Your task to perform on an android device: open app "Microsoft Authenticator" (install if not already installed) and go to login screen Image 0: 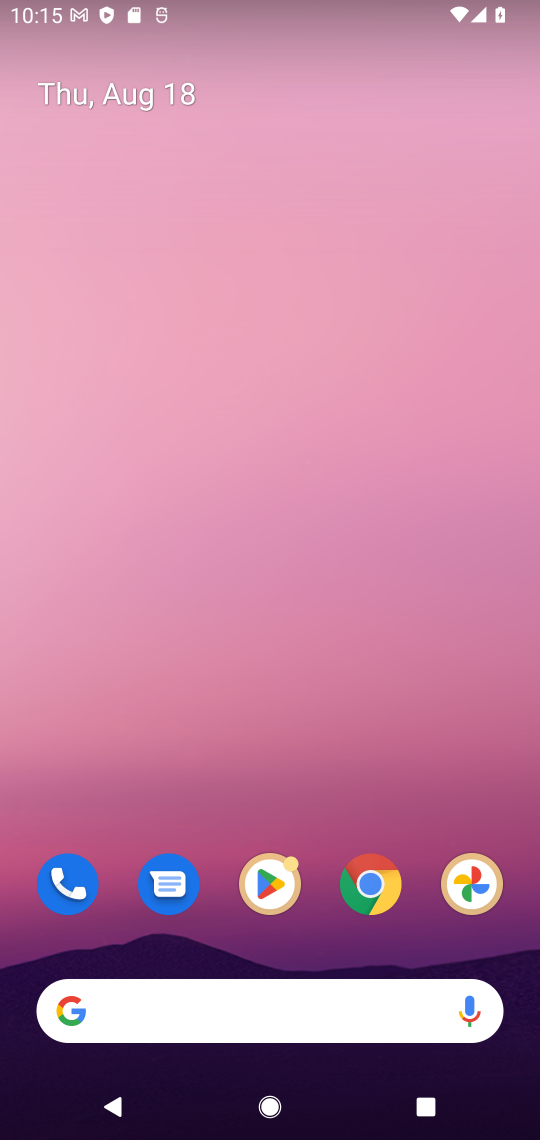
Step 0: drag from (211, 991) to (418, 102)
Your task to perform on an android device: open app "Microsoft Authenticator" (install if not already installed) and go to login screen Image 1: 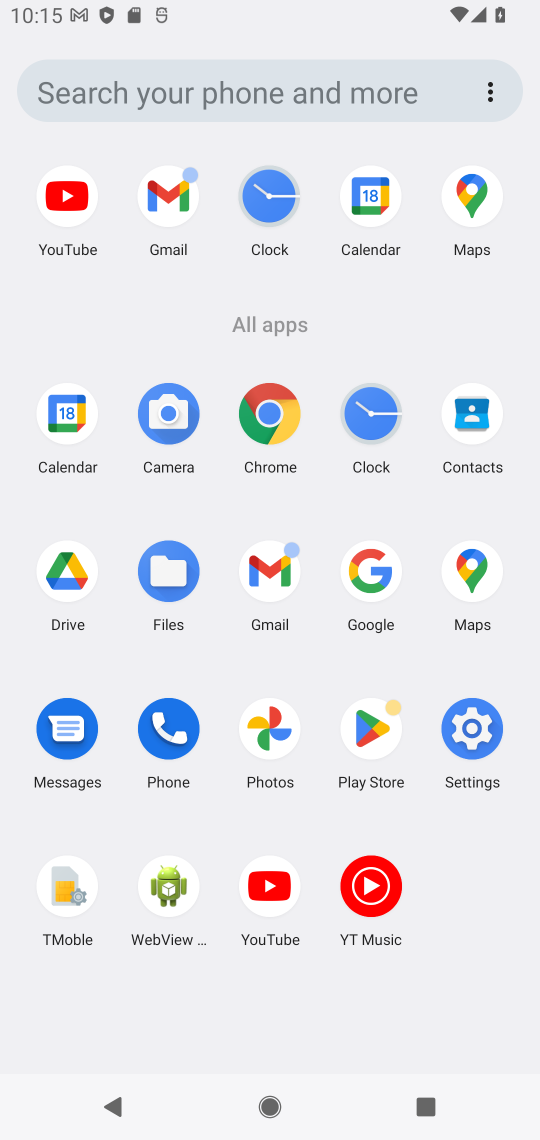
Step 1: click (377, 733)
Your task to perform on an android device: open app "Microsoft Authenticator" (install if not already installed) and go to login screen Image 2: 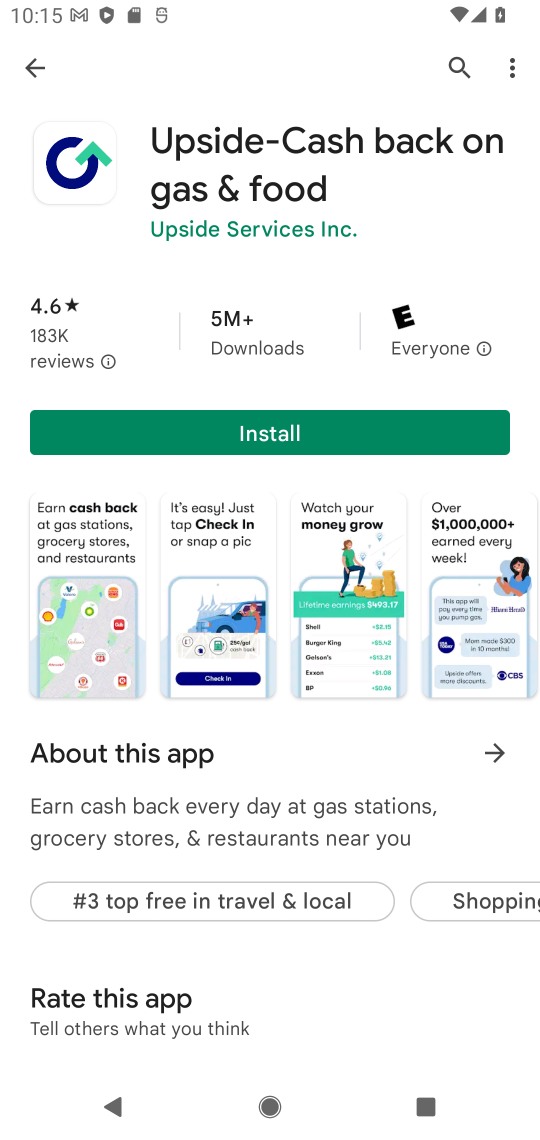
Step 2: press back button
Your task to perform on an android device: open app "Microsoft Authenticator" (install if not already installed) and go to login screen Image 3: 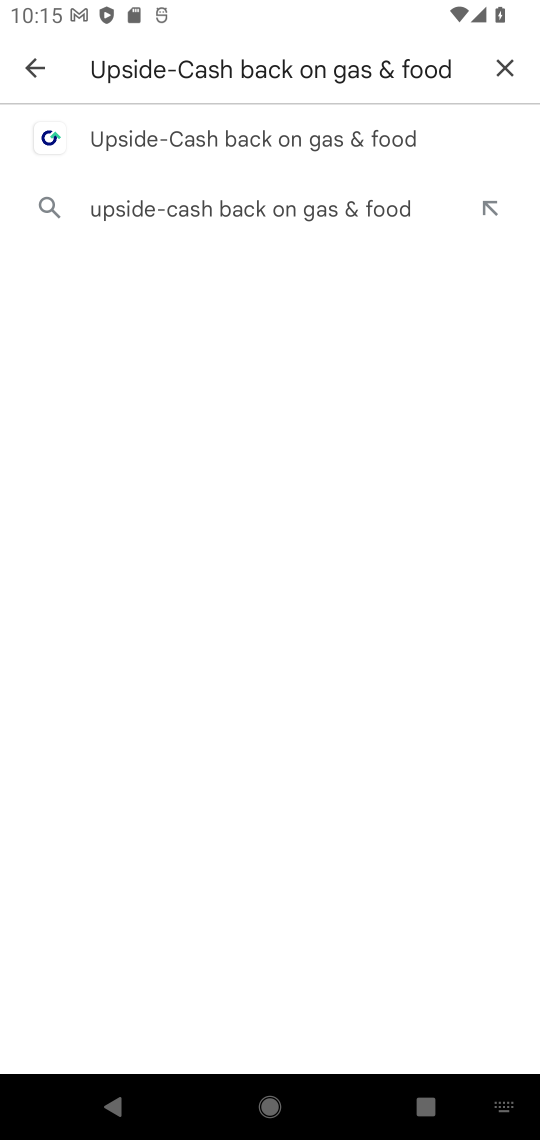
Step 3: press back button
Your task to perform on an android device: open app "Microsoft Authenticator" (install if not already installed) and go to login screen Image 4: 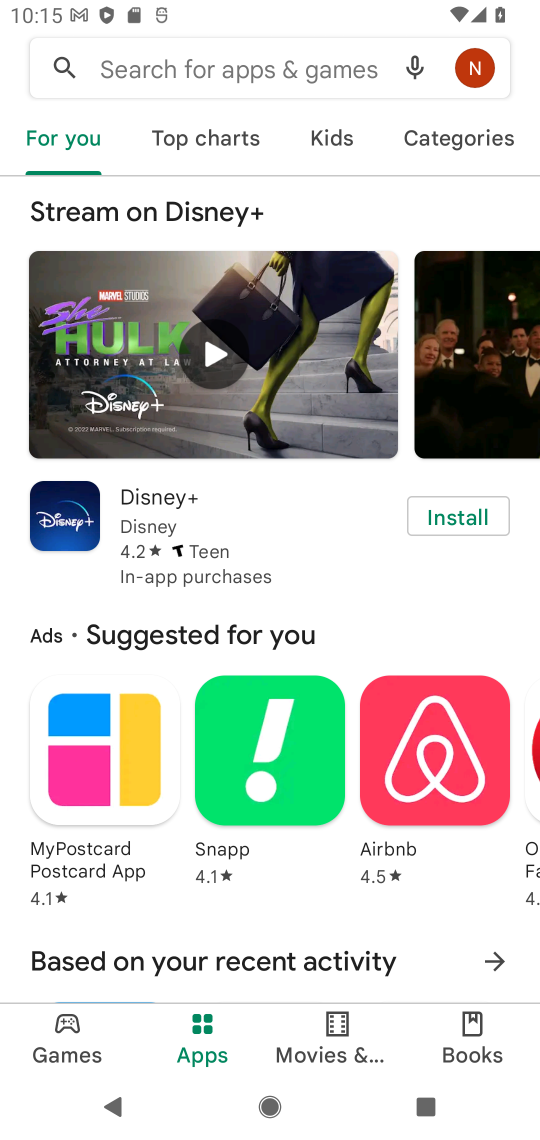
Step 4: click (289, 78)
Your task to perform on an android device: open app "Microsoft Authenticator" (install if not already installed) and go to login screen Image 5: 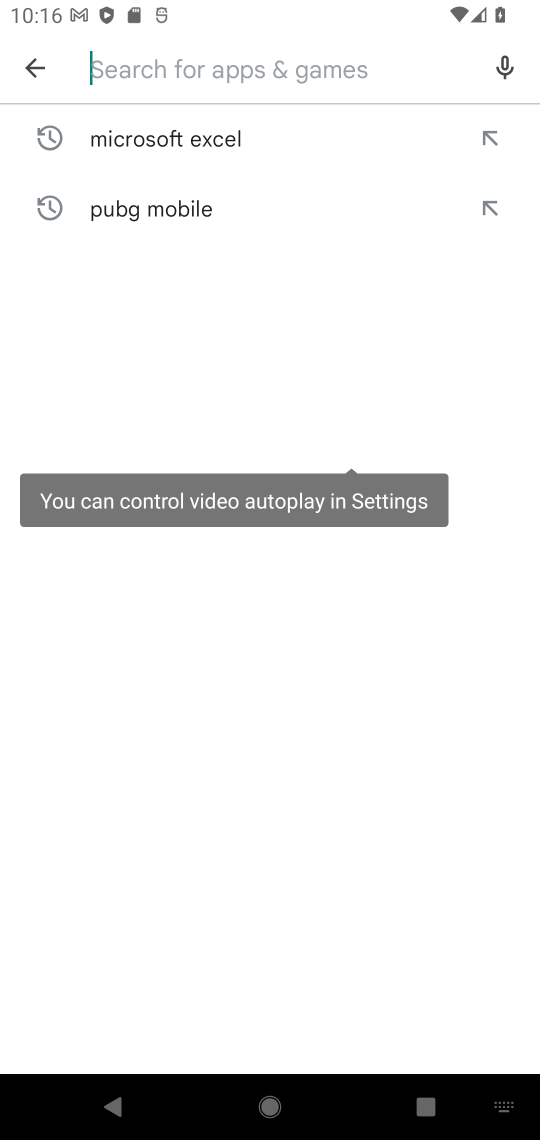
Step 5: type "Microsoft Authenticator"
Your task to perform on an android device: open app "Microsoft Authenticator" (install if not already installed) and go to login screen Image 6: 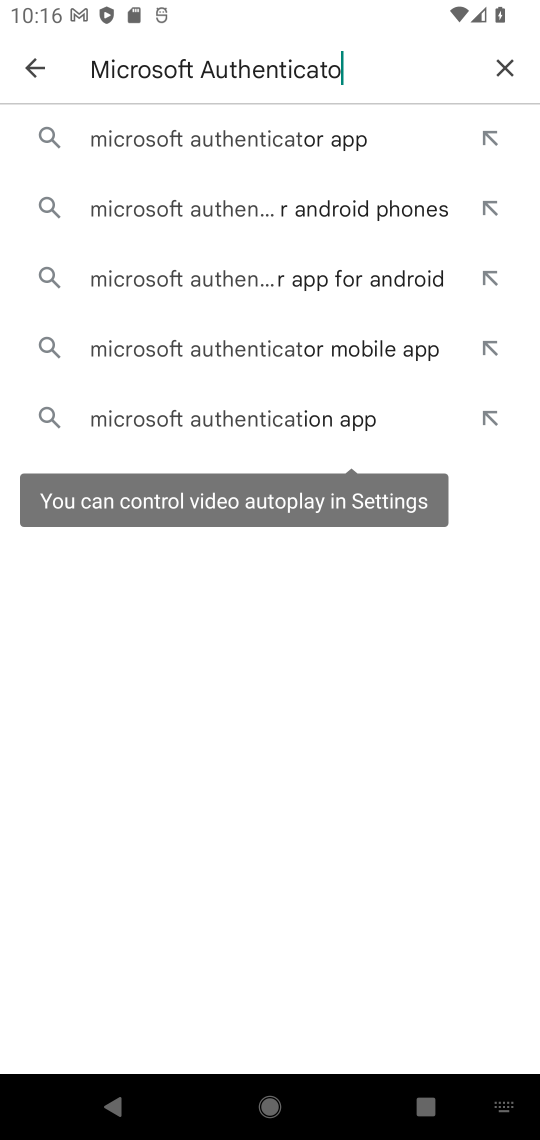
Step 6: type ""
Your task to perform on an android device: open app "Microsoft Authenticator" (install if not already installed) and go to login screen Image 7: 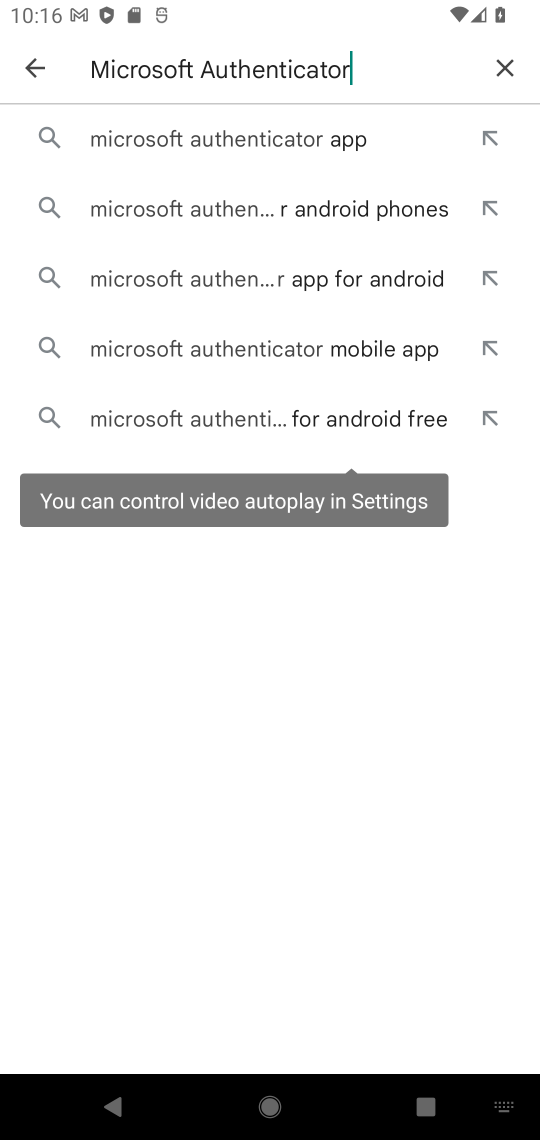
Step 7: click (268, 138)
Your task to perform on an android device: open app "Microsoft Authenticator" (install if not already installed) and go to login screen Image 8: 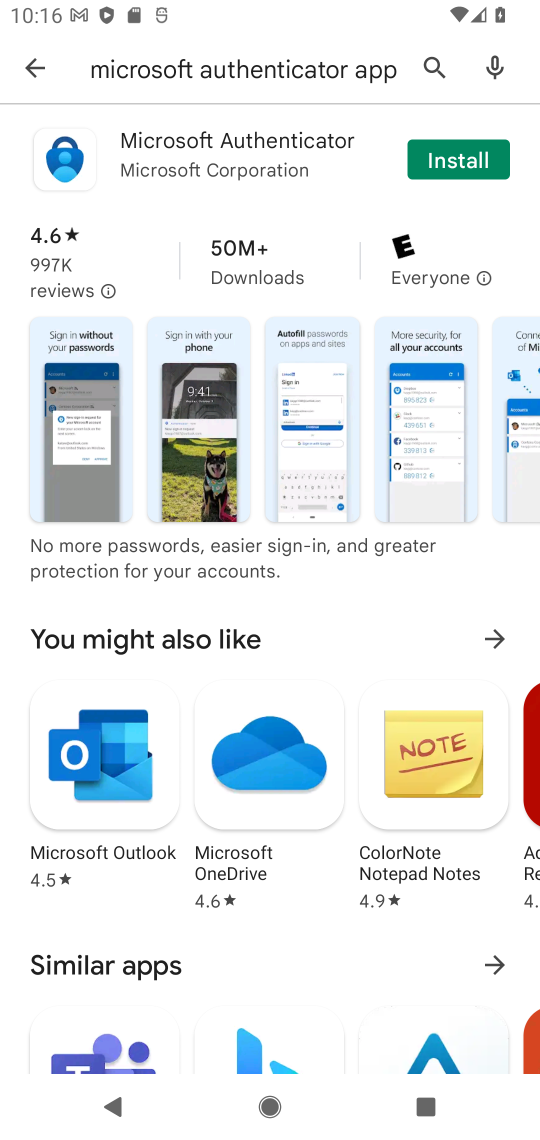
Step 8: click (453, 163)
Your task to perform on an android device: open app "Microsoft Authenticator" (install if not already installed) and go to login screen Image 9: 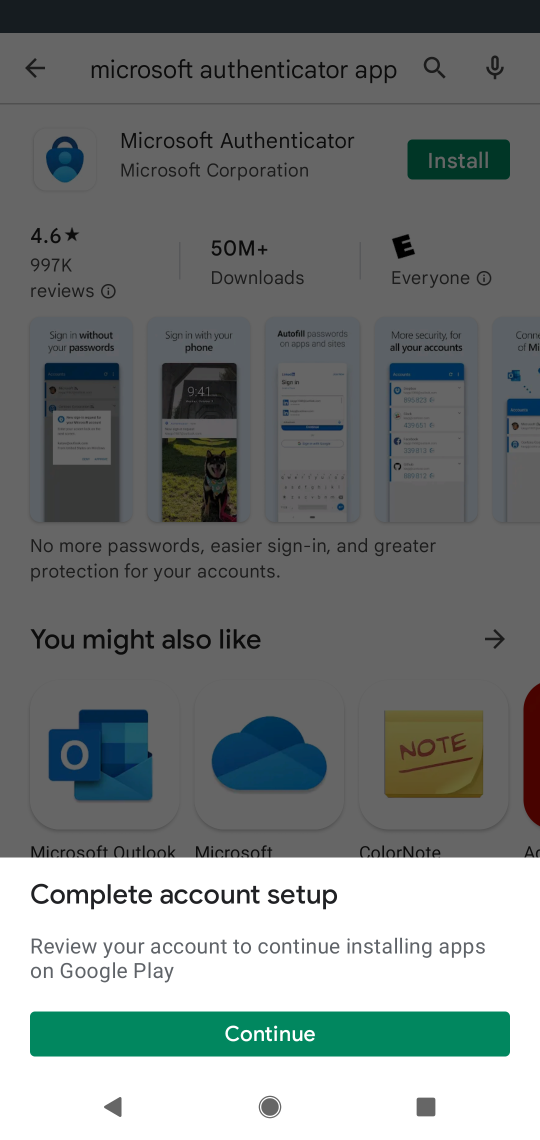
Step 9: click (294, 1038)
Your task to perform on an android device: open app "Microsoft Authenticator" (install if not already installed) and go to login screen Image 10: 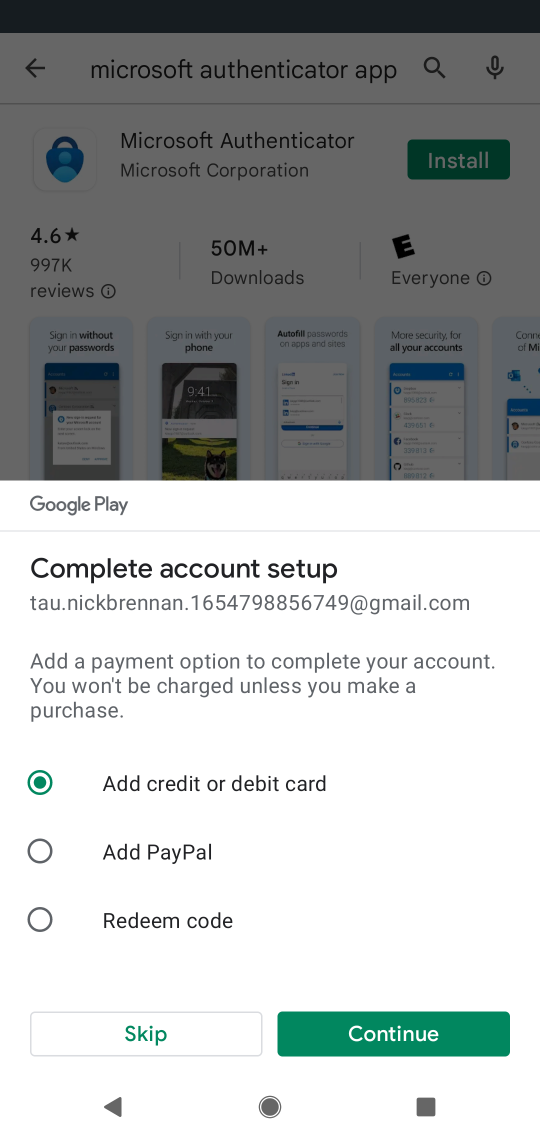
Step 10: click (139, 1040)
Your task to perform on an android device: open app "Microsoft Authenticator" (install if not already installed) and go to login screen Image 11: 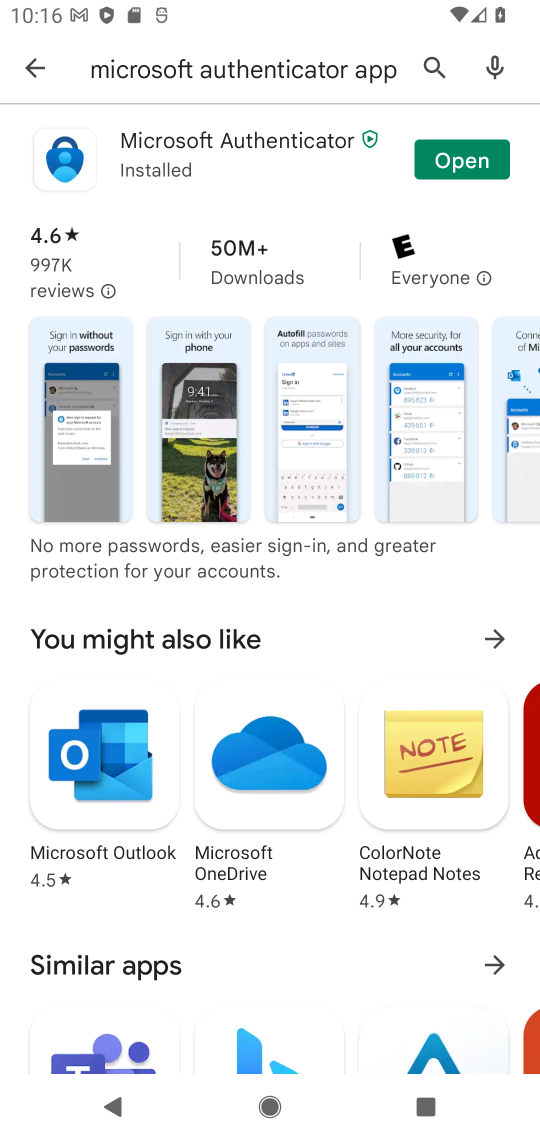
Step 11: click (479, 157)
Your task to perform on an android device: open app "Microsoft Authenticator" (install if not already installed) and go to login screen Image 12: 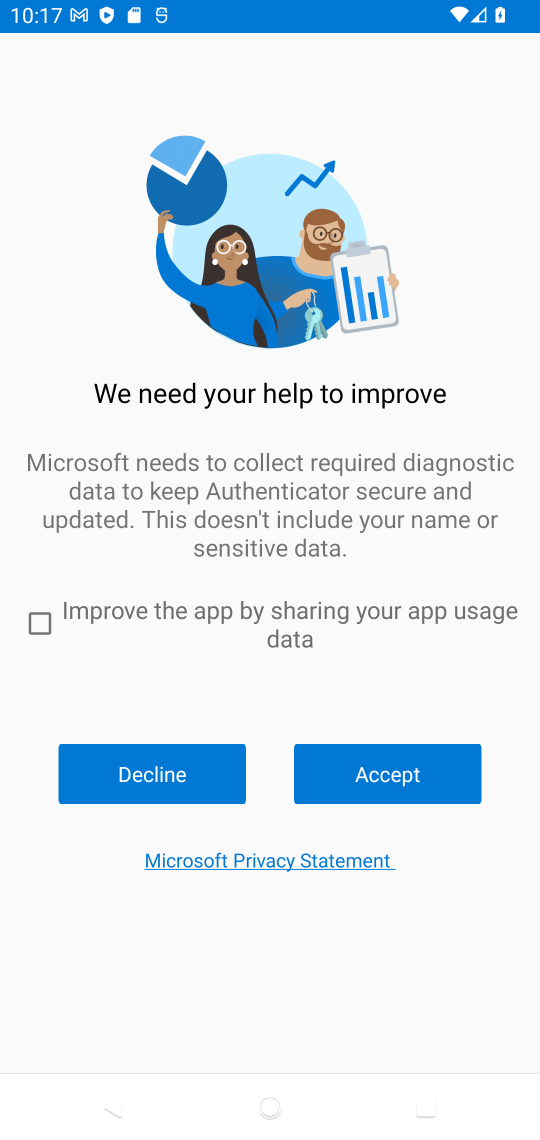
Step 12: click (27, 622)
Your task to perform on an android device: open app "Microsoft Authenticator" (install if not already installed) and go to login screen Image 13: 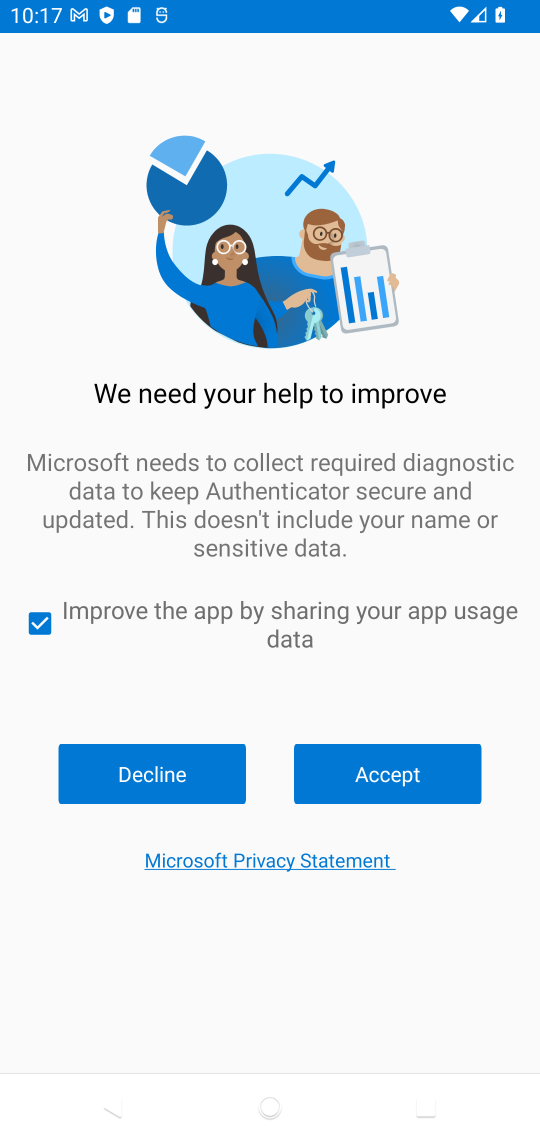
Step 13: click (388, 785)
Your task to perform on an android device: open app "Microsoft Authenticator" (install if not already installed) and go to login screen Image 14: 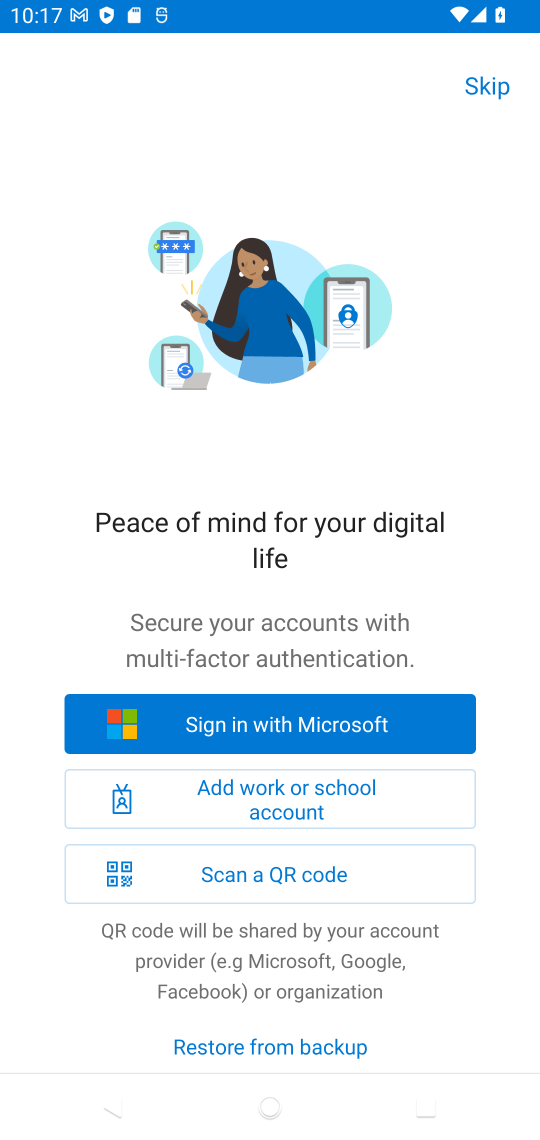
Step 14: click (328, 737)
Your task to perform on an android device: open app "Microsoft Authenticator" (install if not already installed) and go to login screen Image 15: 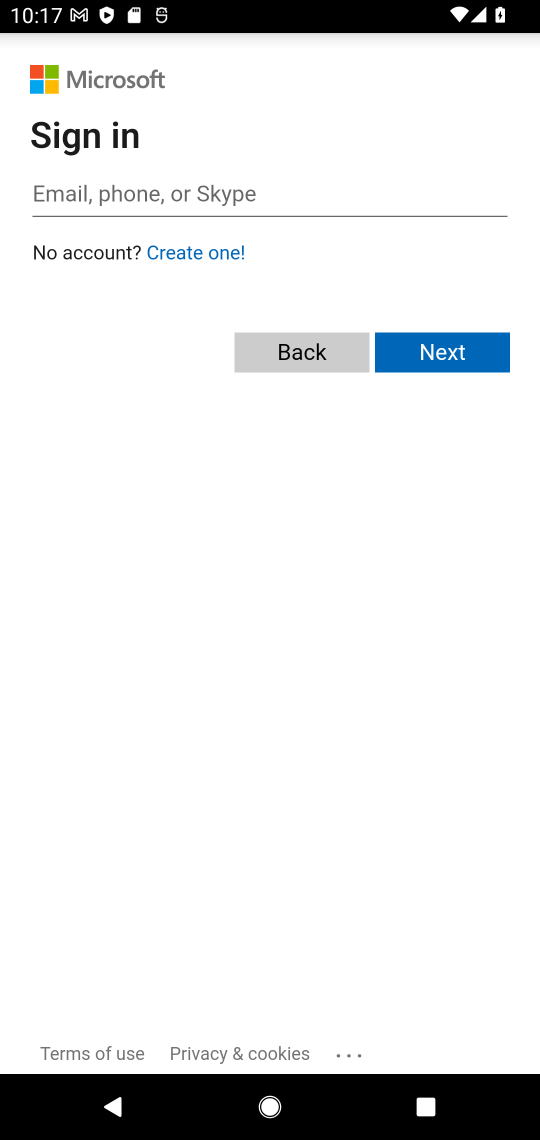
Step 15: task complete